Your task to perform on an android device: turn off location Image 0: 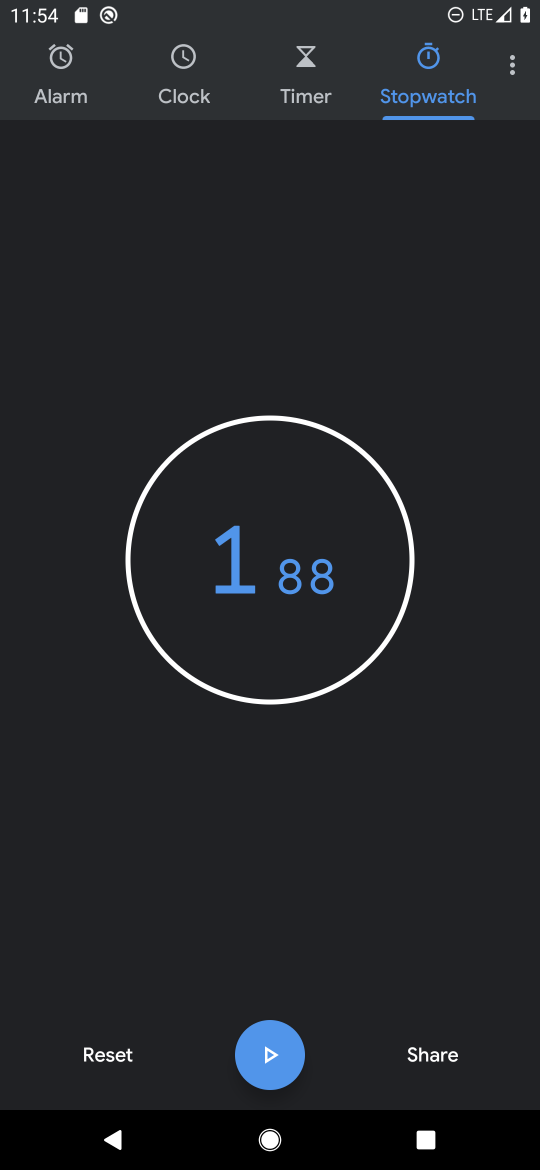
Step 0: press home button
Your task to perform on an android device: turn off location Image 1: 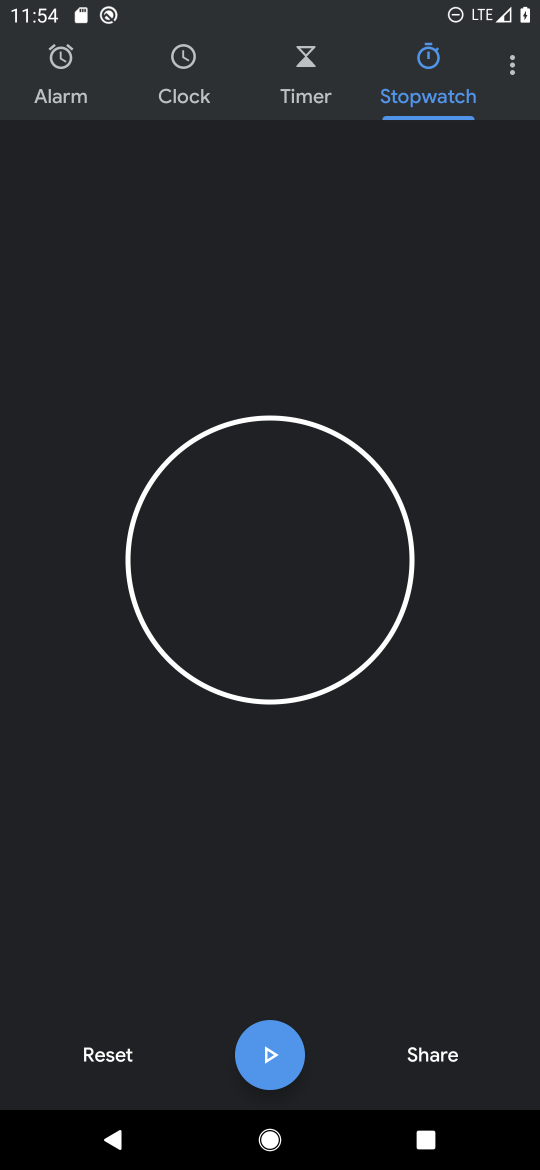
Step 1: press home button
Your task to perform on an android device: turn off location Image 2: 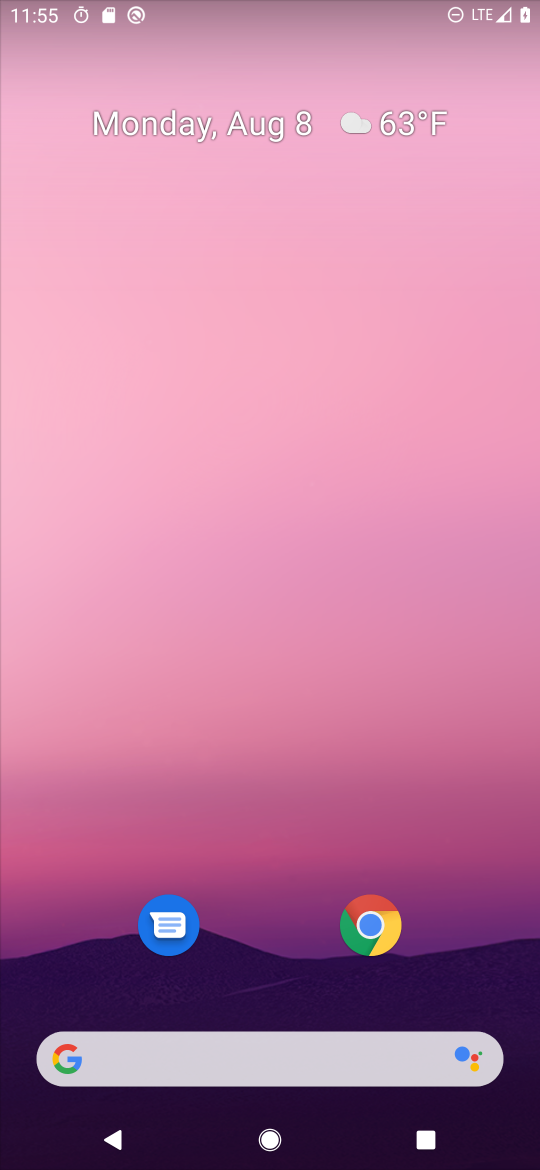
Step 2: drag from (235, 838) to (390, 100)
Your task to perform on an android device: turn off location Image 3: 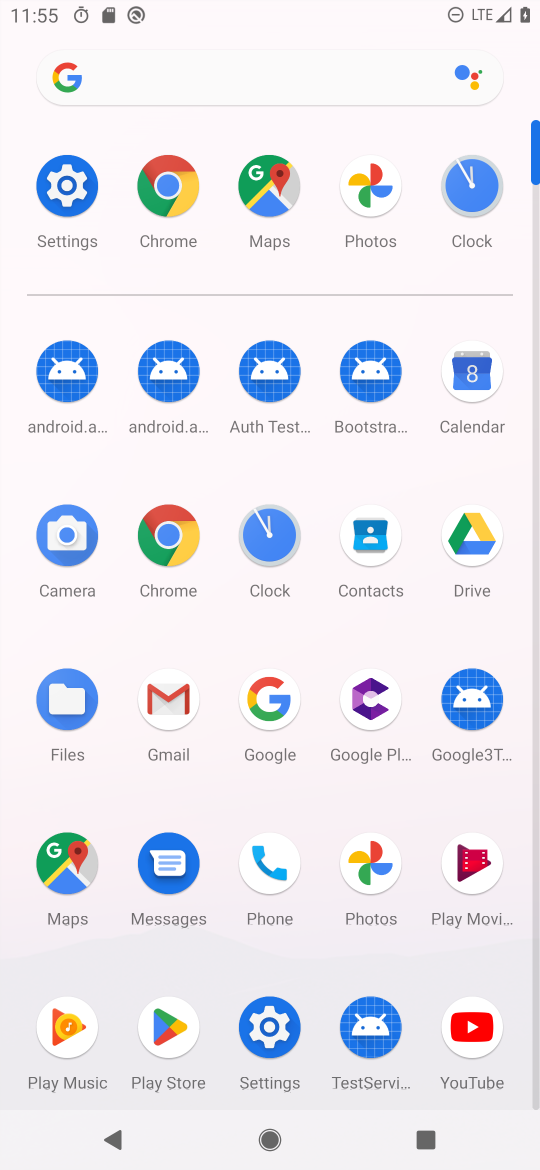
Step 3: click (76, 193)
Your task to perform on an android device: turn off location Image 4: 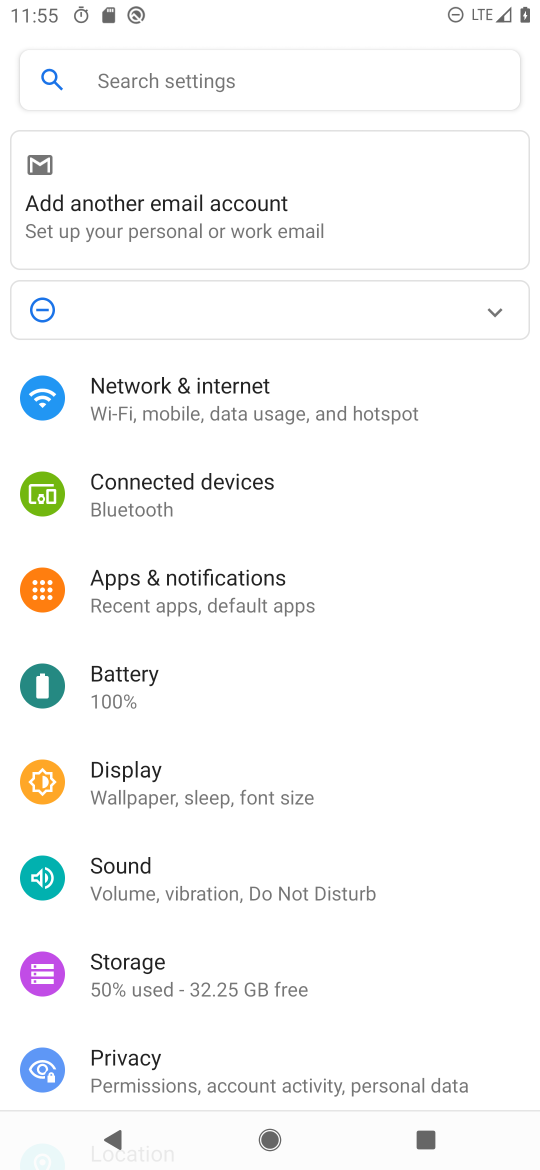
Step 4: drag from (218, 986) to (401, 451)
Your task to perform on an android device: turn off location Image 5: 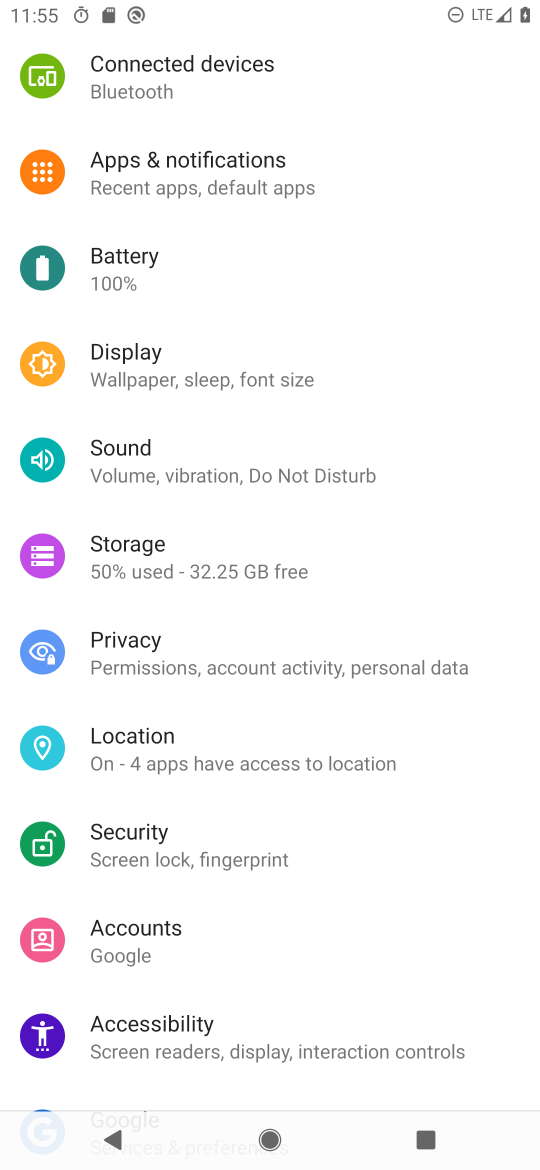
Step 5: click (181, 749)
Your task to perform on an android device: turn off location Image 6: 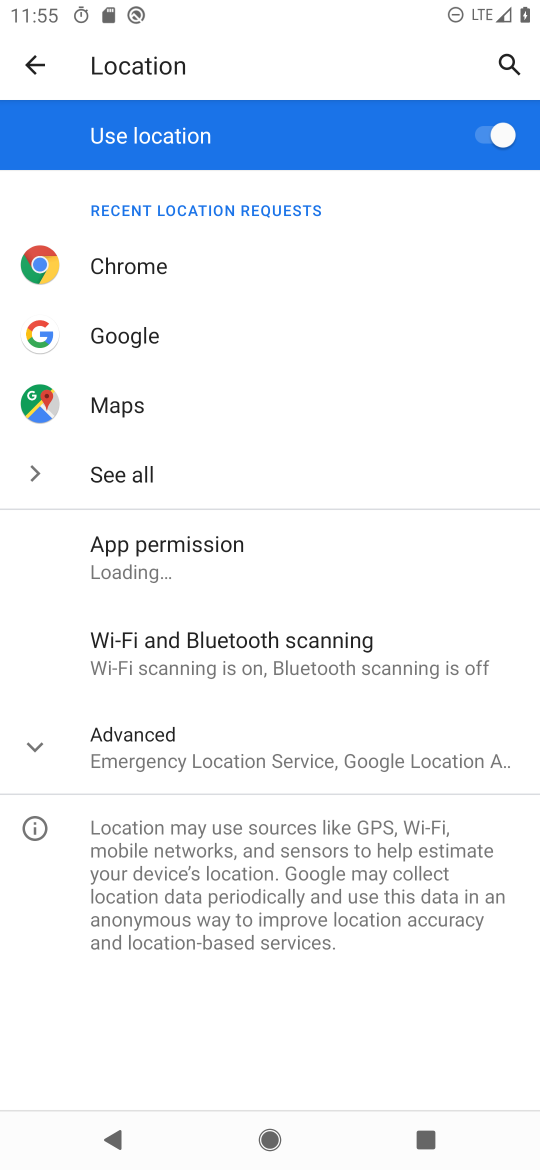
Step 6: click (510, 141)
Your task to perform on an android device: turn off location Image 7: 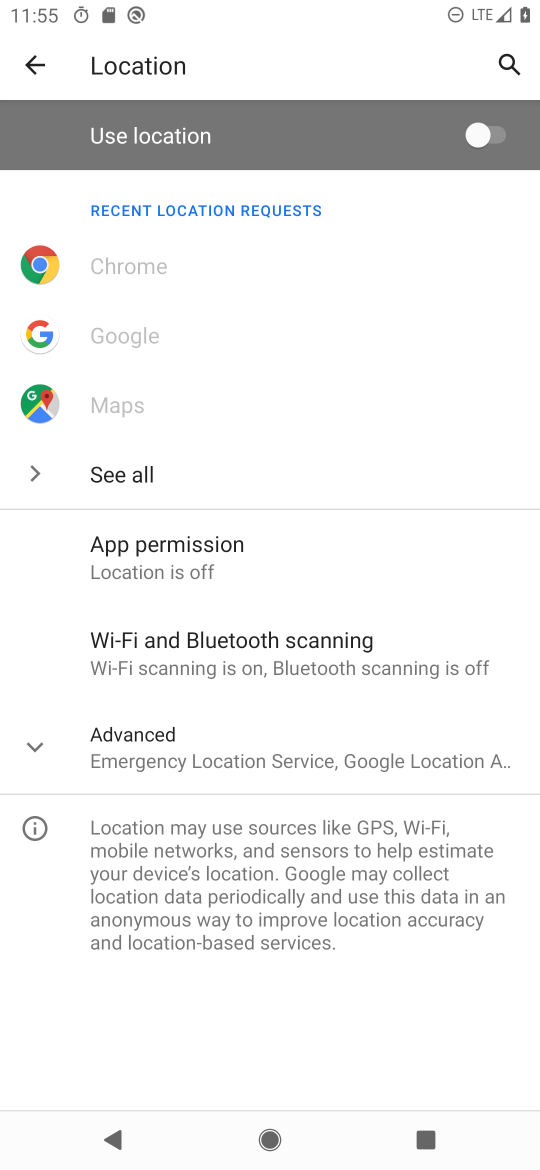
Step 7: task complete